Your task to perform on an android device: Go to sound settings Image 0: 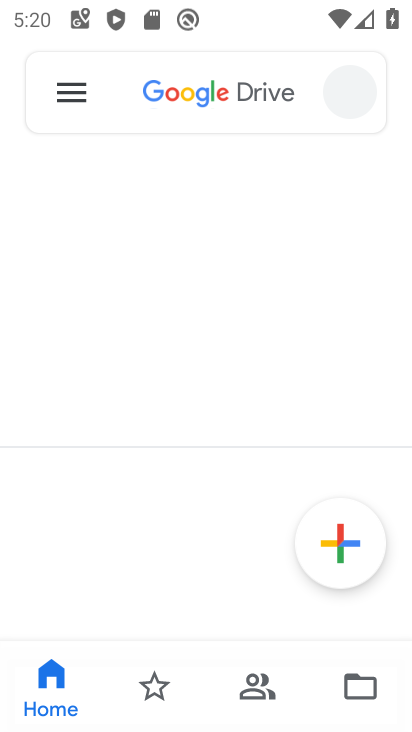
Step 0: press home button
Your task to perform on an android device: Go to sound settings Image 1: 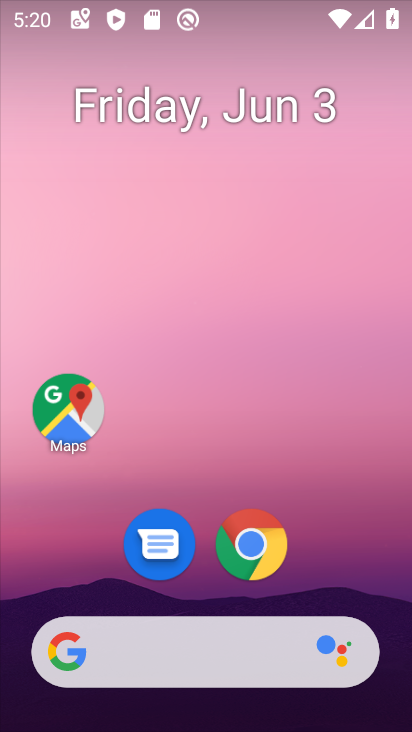
Step 1: drag from (306, 561) to (293, 57)
Your task to perform on an android device: Go to sound settings Image 2: 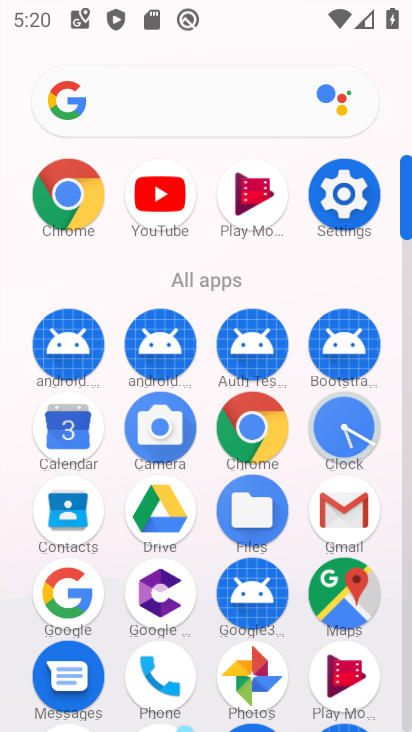
Step 2: click (333, 192)
Your task to perform on an android device: Go to sound settings Image 3: 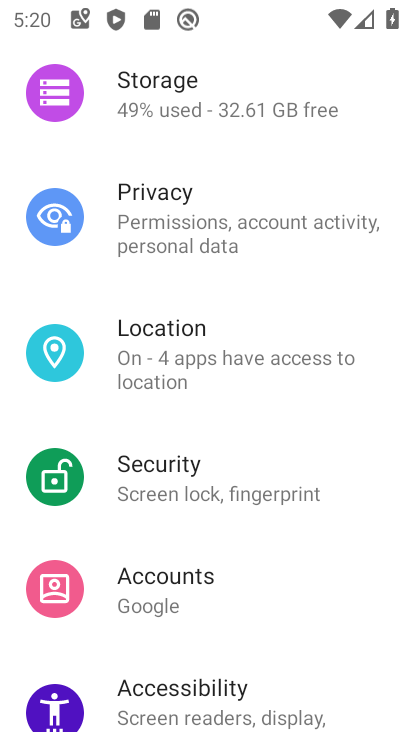
Step 3: drag from (281, 184) to (279, 531)
Your task to perform on an android device: Go to sound settings Image 4: 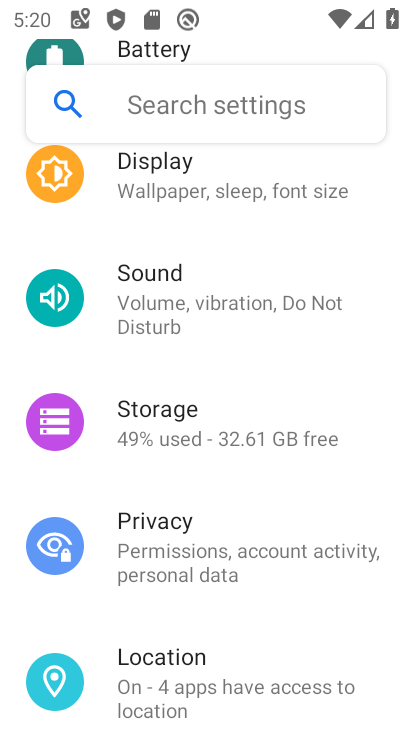
Step 4: click (166, 285)
Your task to perform on an android device: Go to sound settings Image 5: 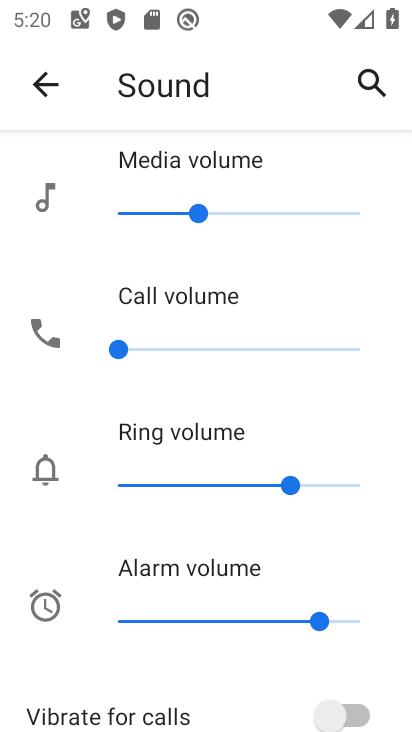
Step 5: task complete